Your task to perform on an android device: toggle pop-ups in chrome Image 0: 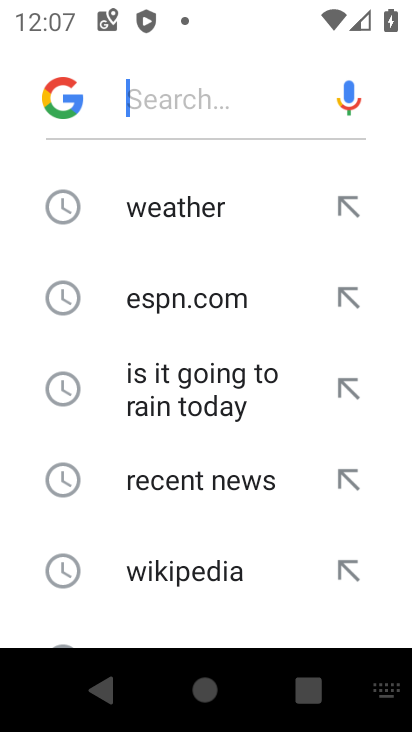
Step 0: press home button
Your task to perform on an android device: toggle pop-ups in chrome Image 1: 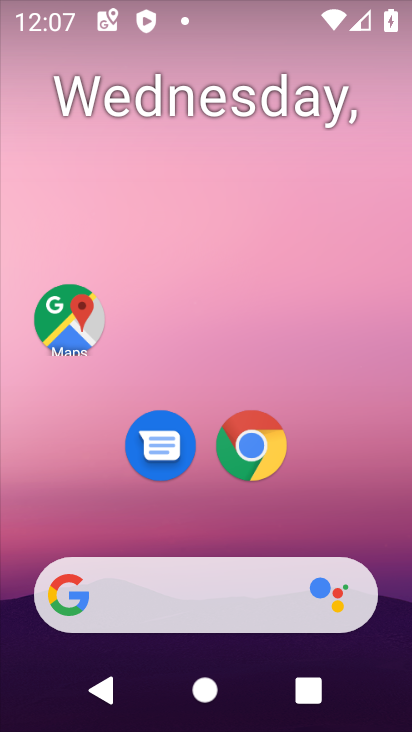
Step 1: click (257, 445)
Your task to perform on an android device: toggle pop-ups in chrome Image 2: 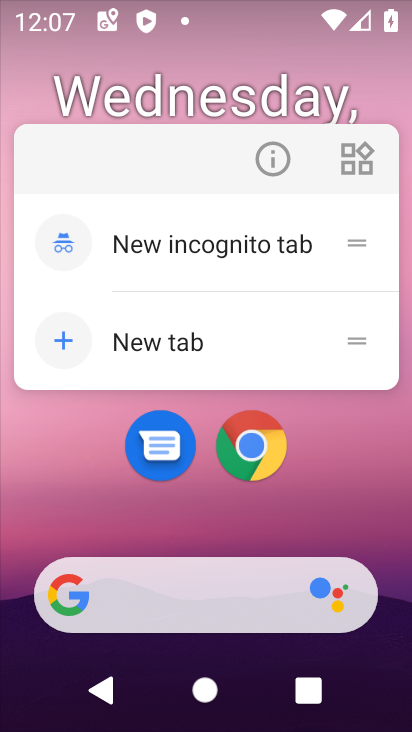
Step 2: click (276, 442)
Your task to perform on an android device: toggle pop-ups in chrome Image 3: 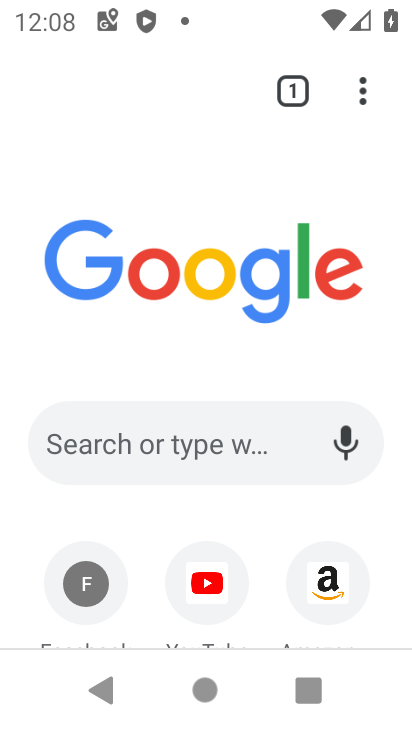
Step 3: drag from (365, 88) to (109, 471)
Your task to perform on an android device: toggle pop-ups in chrome Image 4: 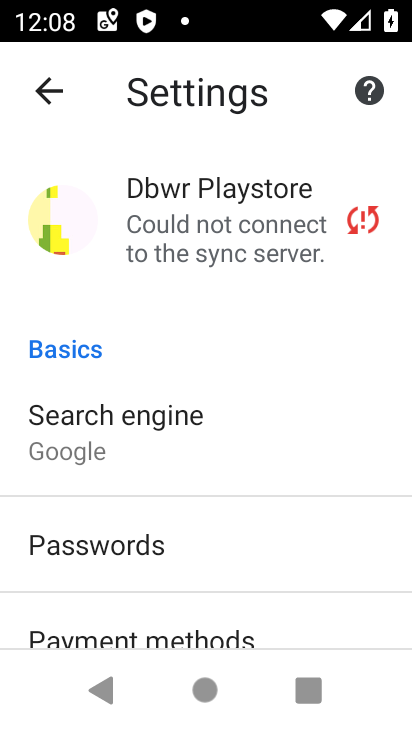
Step 4: drag from (255, 609) to (287, 156)
Your task to perform on an android device: toggle pop-ups in chrome Image 5: 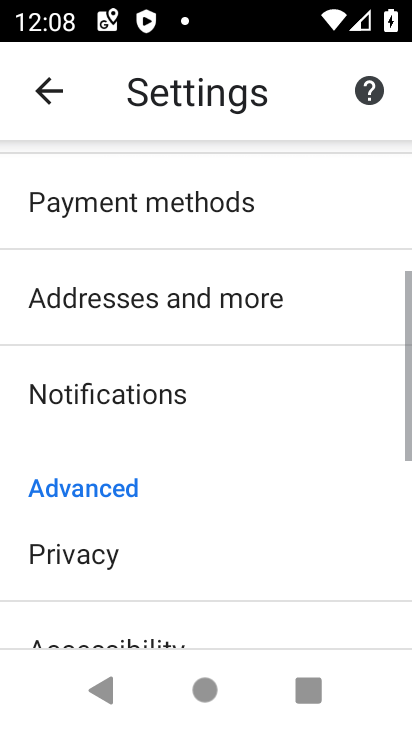
Step 5: drag from (225, 566) to (292, 114)
Your task to perform on an android device: toggle pop-ups in chrome Image 6: 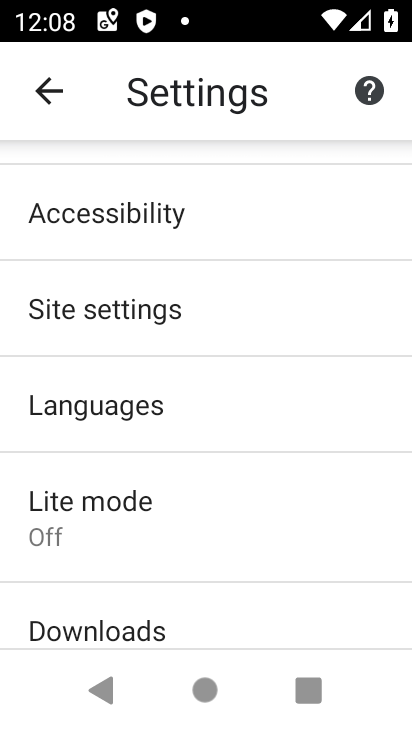
Step 6: click (146, 314)
Your task to perform on an android device: toggle pop-ups in chrome Image 7: 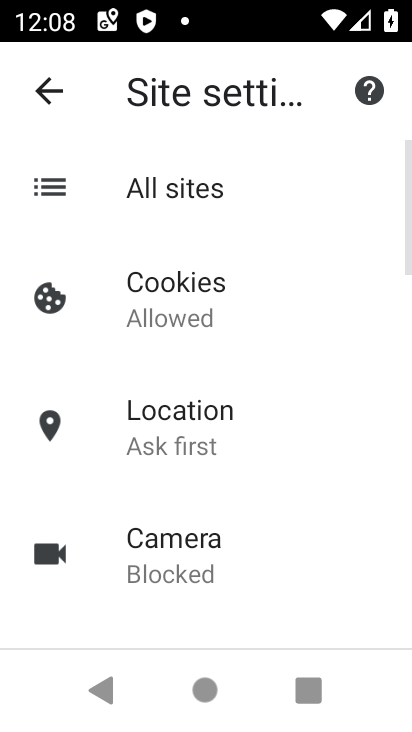
Step 7: drag from (275, 579) to (287, 106)
Your task to perform on an android device: toggle pop-ups in chrome Image 8: 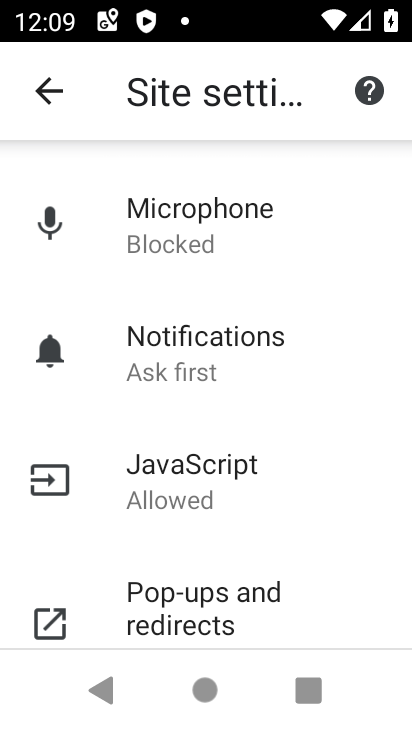
Step 8: click (238, 578)
Your task to perform on an android device: toggle pop-ups in chrome Image 9: 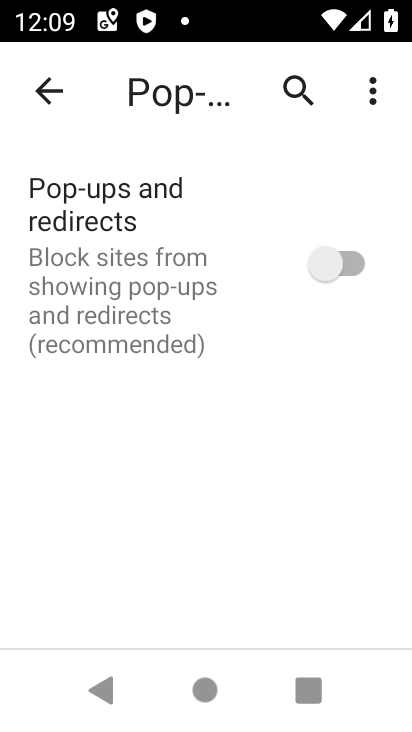
Step 9: click (321, 252)
Your task to perform on an android device: toggle pop-ups in chrome Image 10: 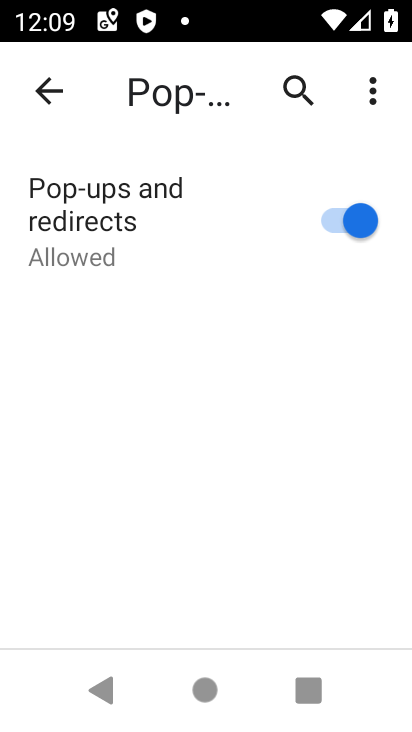
Step 10: task complete